Your task to perform on an android device: turn notification dots off Image 0: 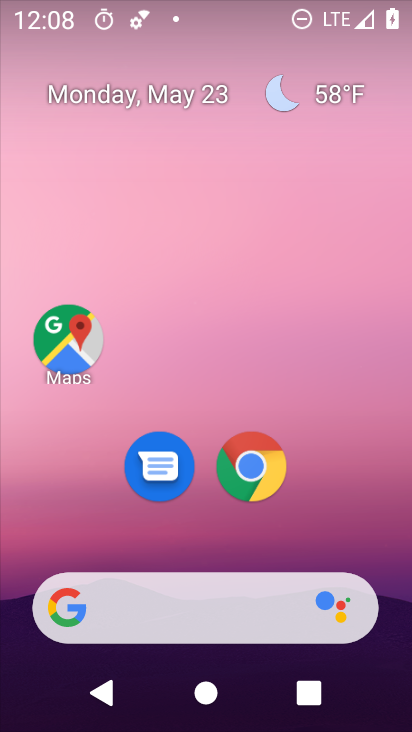
Step 0: drag from (202, 523) to (176, 134)
Your task to perform on an android device: turn notification dots off Image 1: 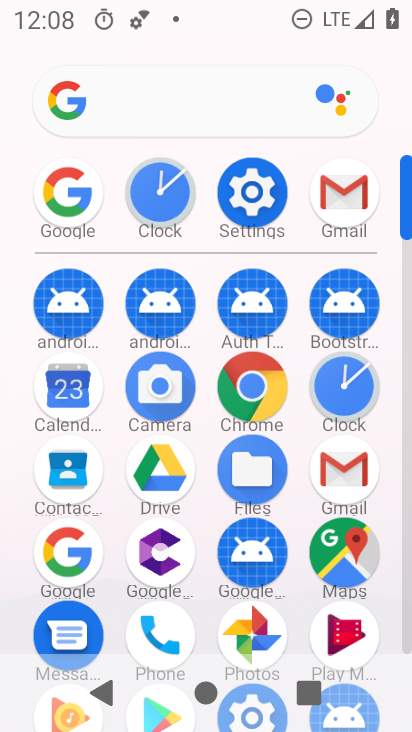
Step 1: click (256, 190)
Your task to perform on an android device: turn notification dots off Image 2: 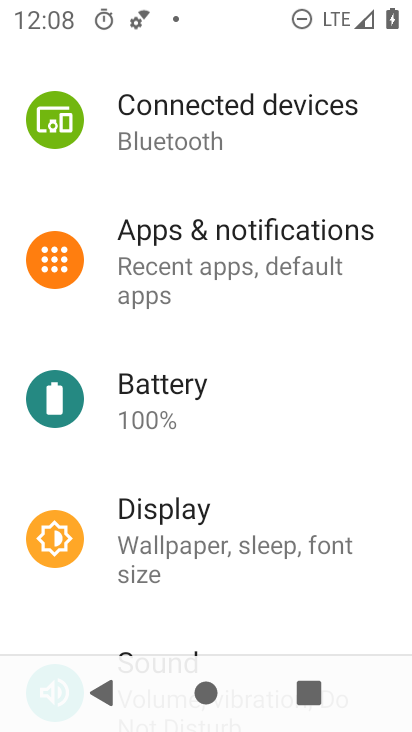
Step 2: click (234, 254)
Your task to perform on an android device: turn notification dots off Image 3: 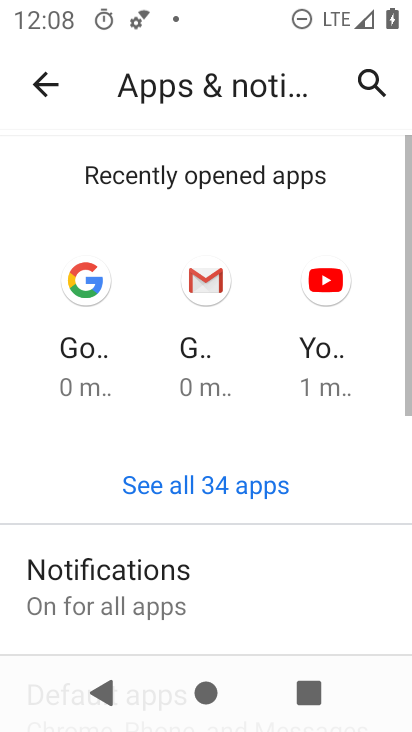
Step 3: click (158, 573)
Your task to perform on an android device: turn notification dots off Image 4: 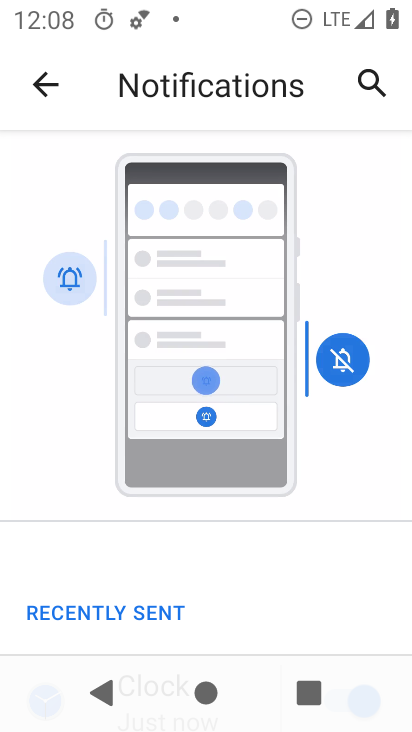
Step 4: drag from (253, 597) to (271, 157)
Your task to perform on an android device: turn notification dots off Image 5: 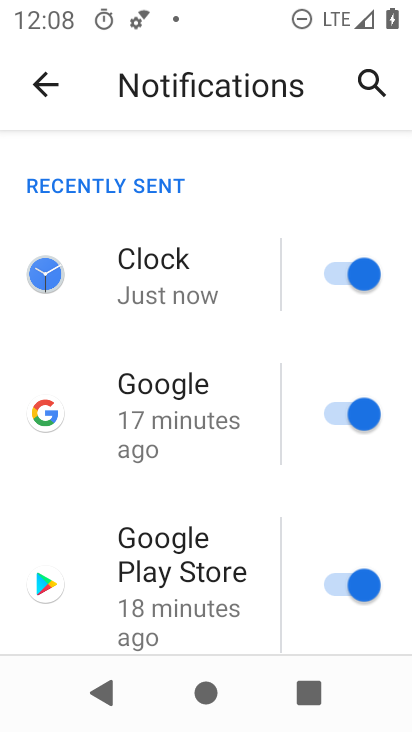
Step 5: drag from (237, 558) to (290, 103)
Your task to perform on an android device: turn notification dots off Image 6: 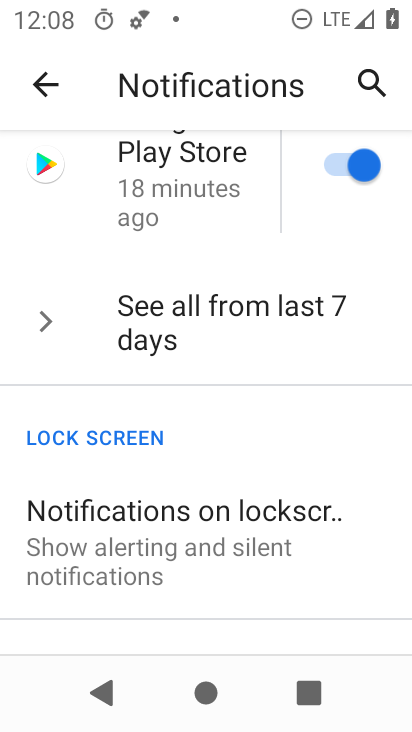
Step 6: drag from (211, 563) to (223, 195)
Your task to perform on an android device: turn notification dots off Image 7: 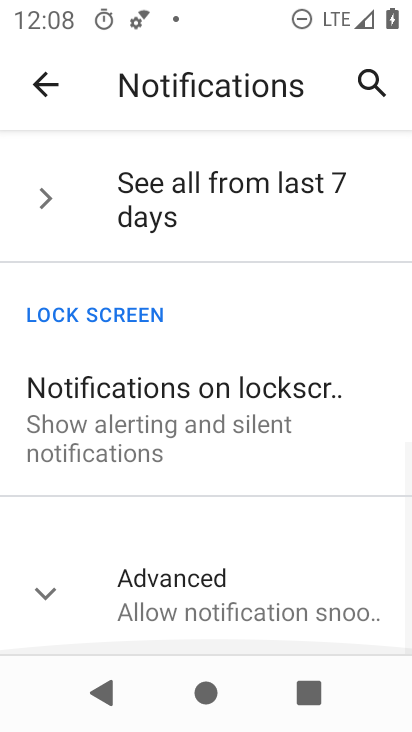
Step 7: click (120, 575)
Your task to perform on an android device: turn notification dots off Image 8: 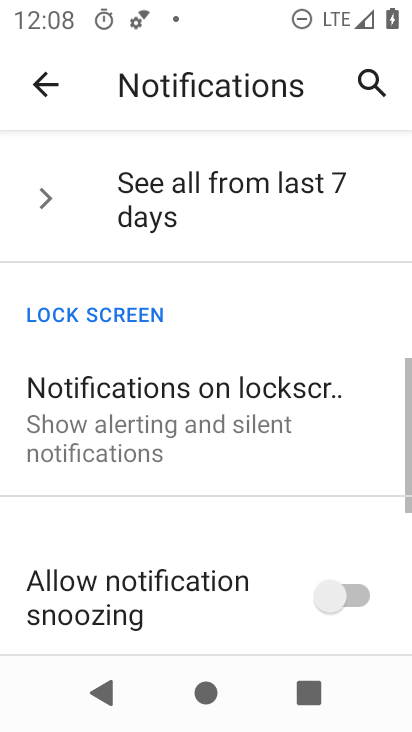
Step 8: task complete